Your task to perform on an android device: toggle improve location accuracy Image 0: 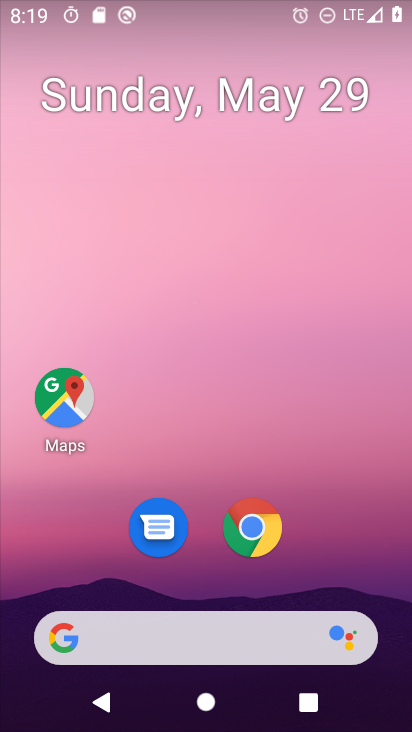
Step 0: drag from (310, 99) to (272, 14)
Your task to perform on an android device: toggle improve location accuracy Image 1: 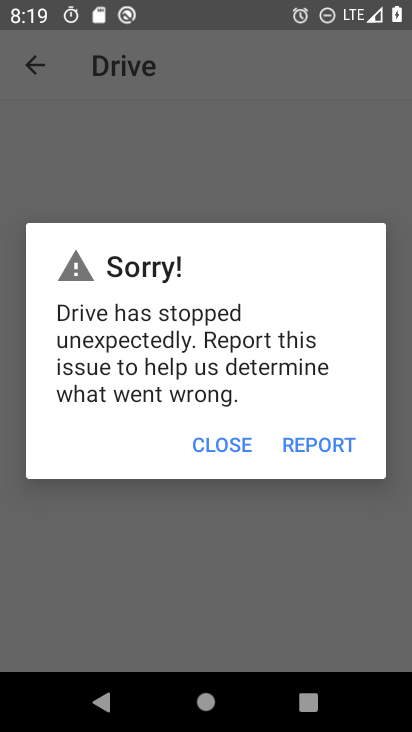
Step 1: press home button
Your task to perform on an android device: toggle improve location accuracy Image 2: 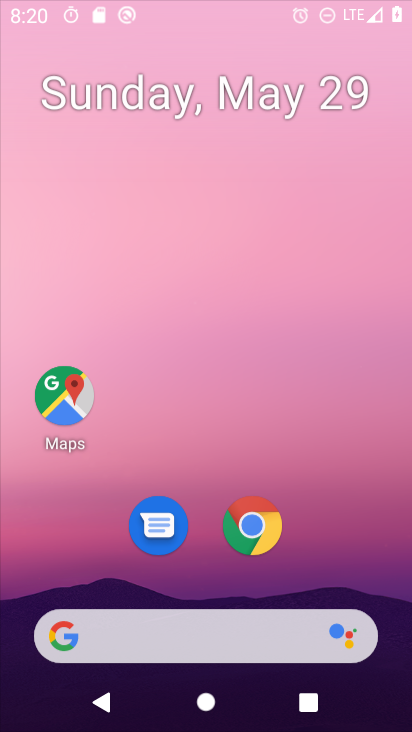
Step 2: drag from (399, 626) to (308, 116)
Your task to perform on an android device: toggle improve location accuracy Image 3: 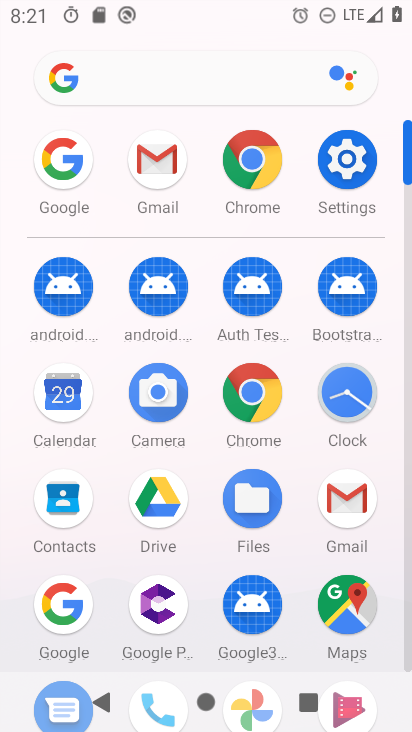
Step 3: click (368, 121)
Your task to perform on an android device: toggle improve location accuracy Image 4: 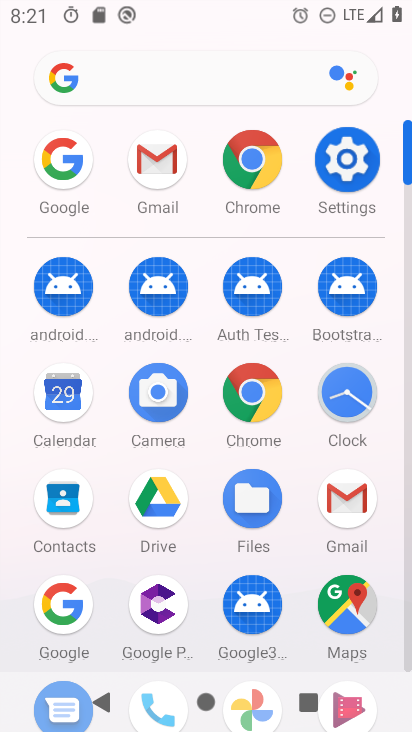
Step 4: click (366, 151)
Your task to perform on an android device: toggle improve location accuracy Image 5: 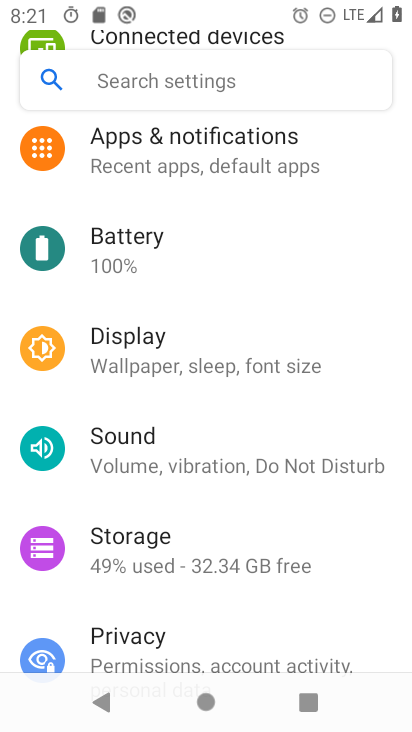
Step 5: drag from (184, 628) to (256, 151)
Your task to perform on an android device: toggle improve location accuracy Image 6: 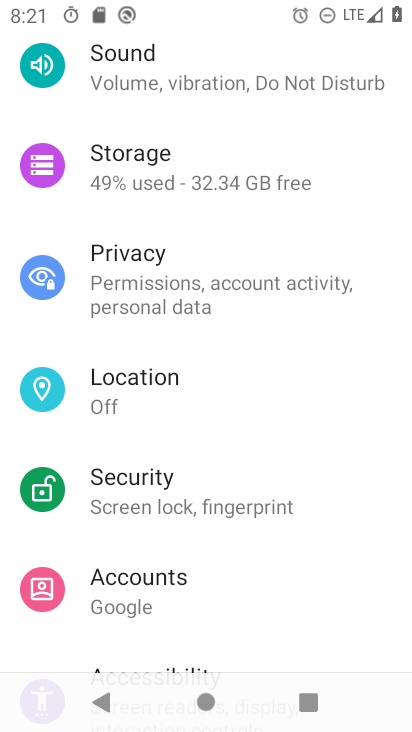
Step 6: click (189, 391)
Your task to perform on an android device: toggle improve location accuracy Image 7: 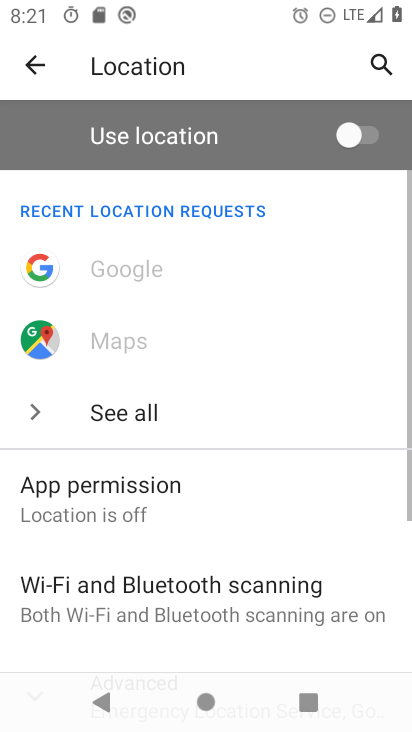
Step 7: drag from (207, 624) to (229, 125)
Your task to perform on an android device: toggle improve location accuracy Image 8: 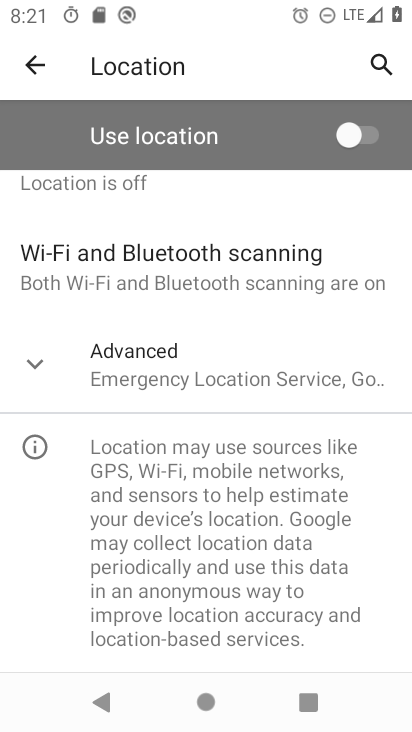
Step 8: click (149, 365)
Your task to perform on an android device: toggle improve location accuracy Image 9: 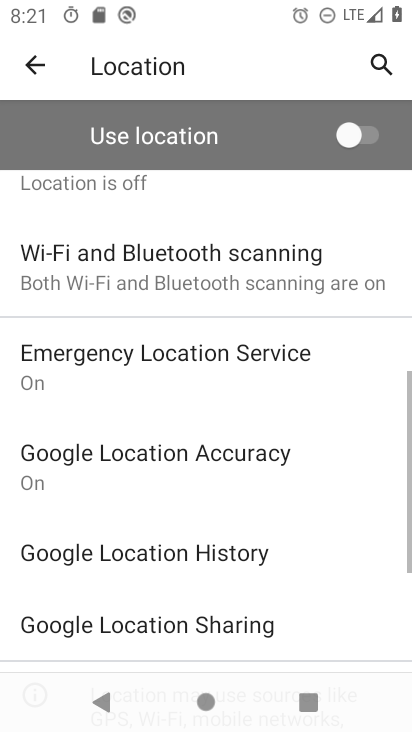
Step 9: click (160, 474)
Your task to perform on an android device: toggle improve location accuracy Image 10: 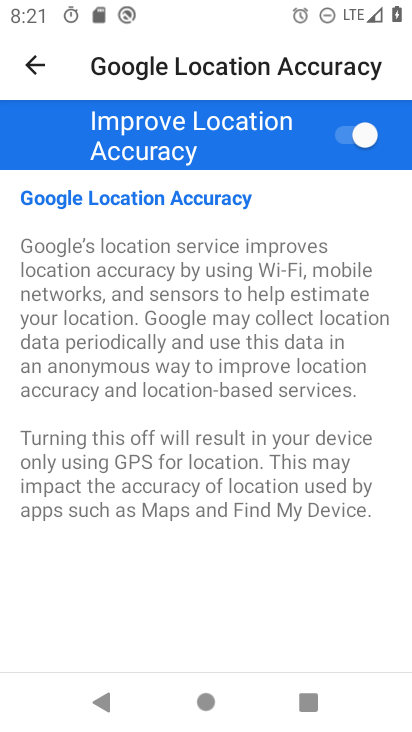
Step 10: click (378, 109)
Your task to perform on an android device: toggle improve location accuracy Image 11: 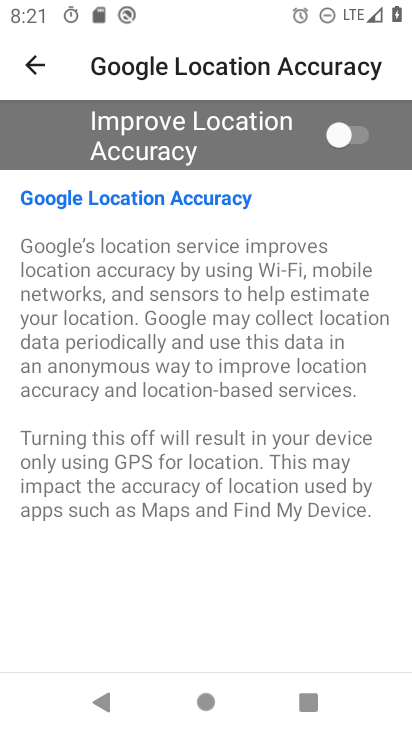
Step 11: task complete